Your task to perform on an android device: set the stopwatch Image 0: 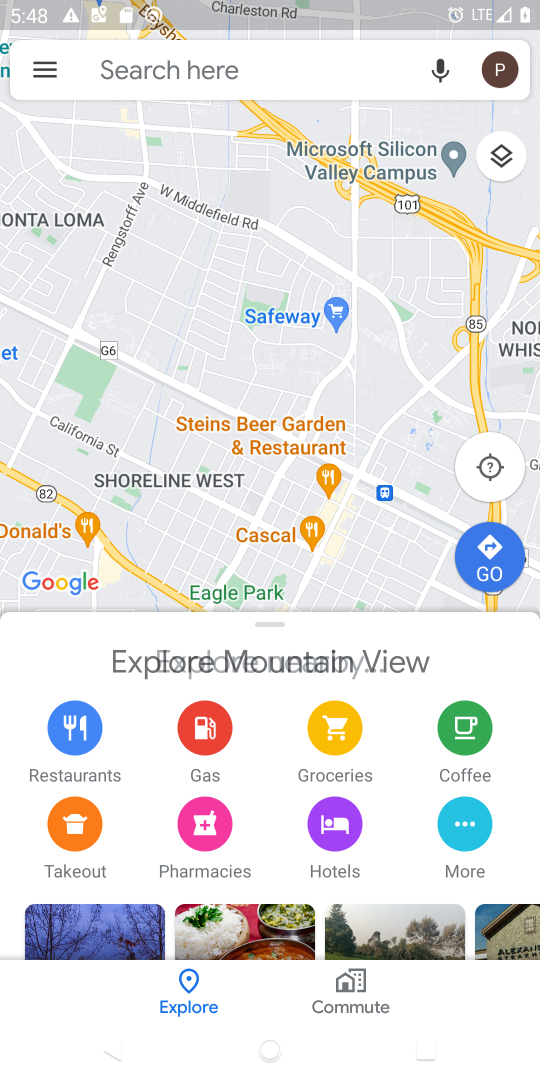
Step 0: press back button
Your task to perform on an android device: set the stopwatch Image 1: 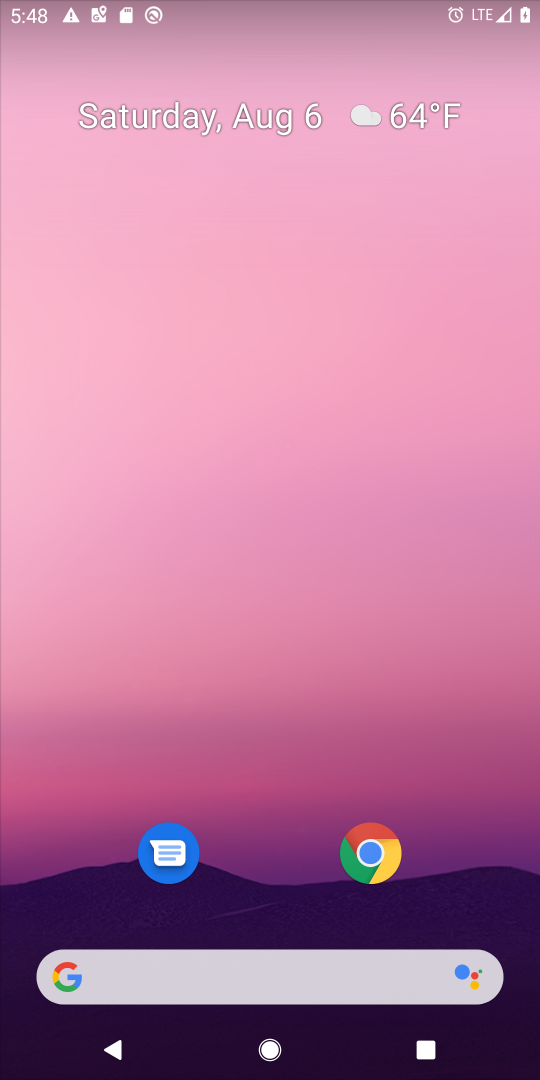
Step 1: drag from (237, 886) to (380, 44)
Your task to perform on an android device: set the stopwatch Image 2: 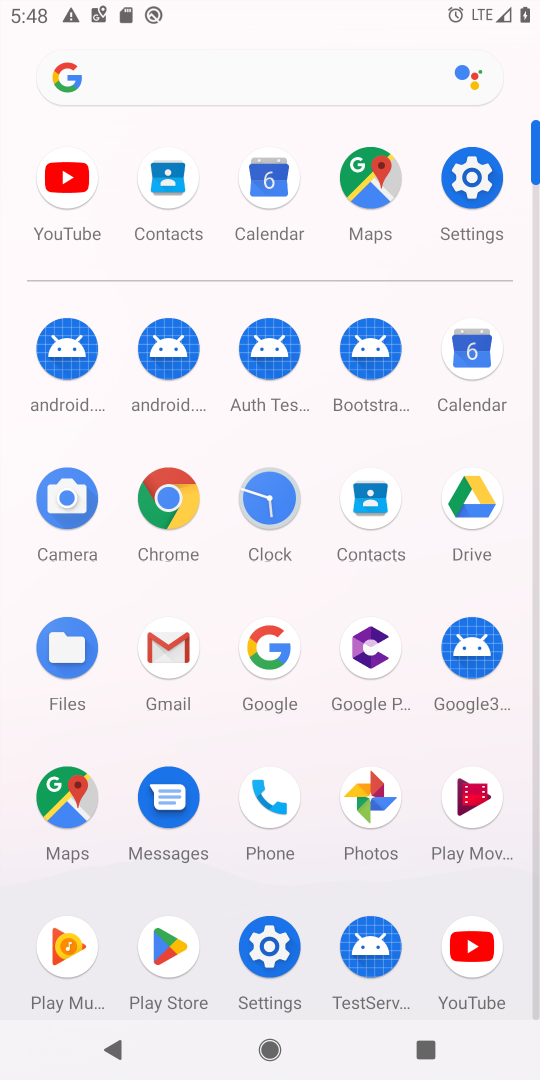
Step 2: click (271, 483)
Your task to perform on an android device: set the stopwatch Image 3: 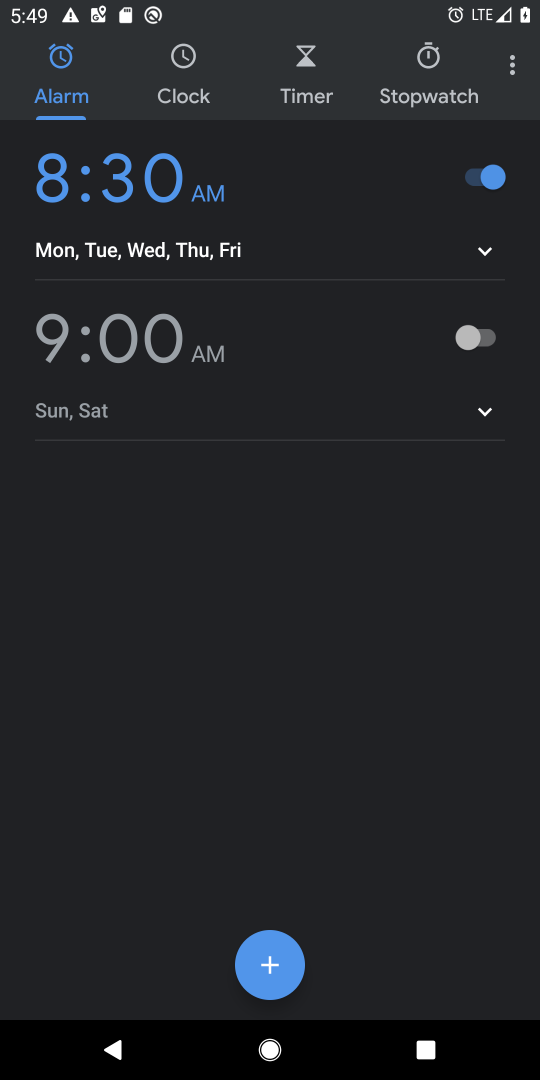
Step 3: click (449, 73)
Your task to perform on an android device: set the stopwatch Image 4: 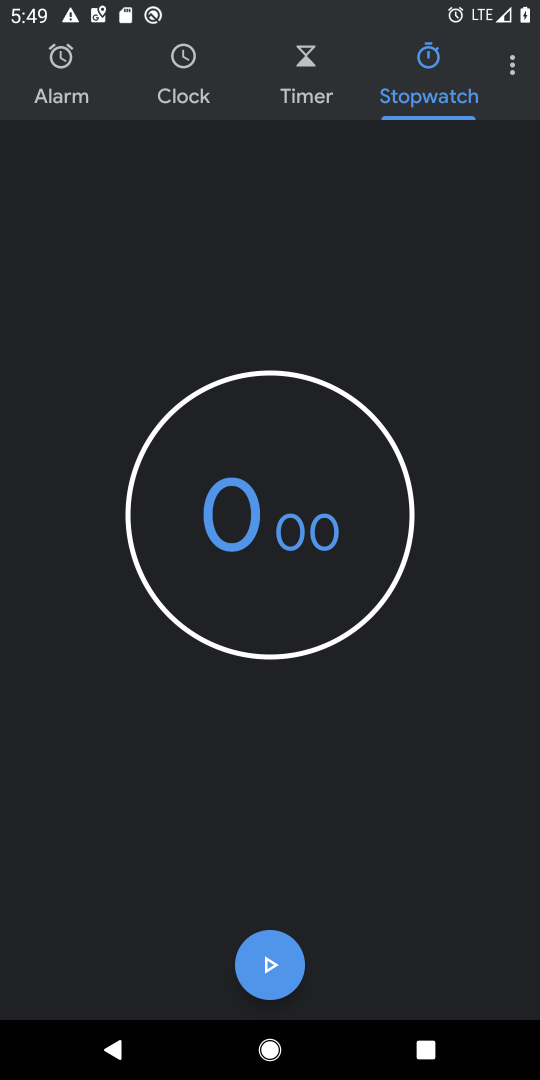
Step 4: click (286, 534)
Your task to perform on an android device: set the stopwatch Image 5: 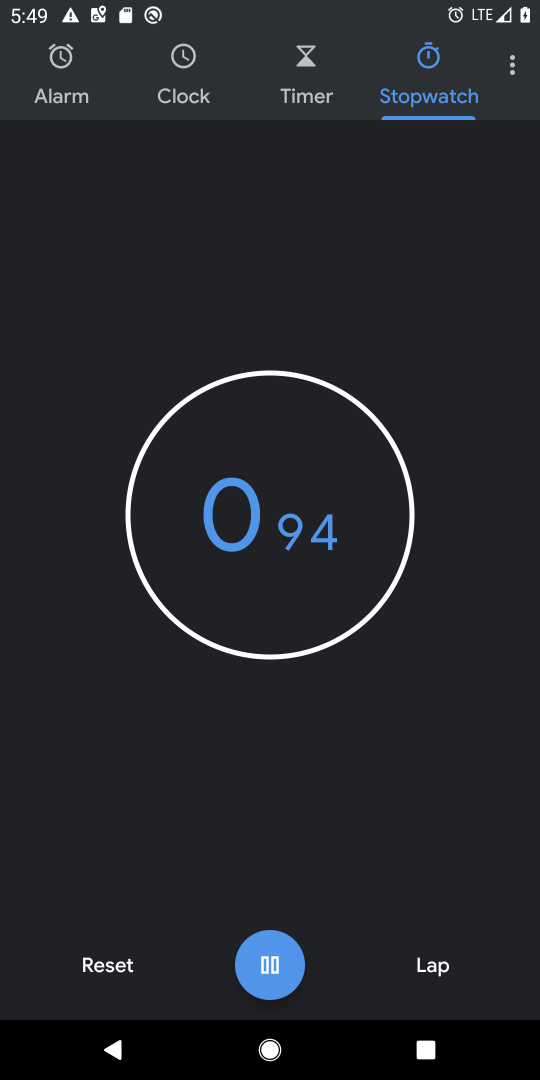
Step 5: click (286, 534)
Your task to perform on an android device: set the stopwatch Image 6: 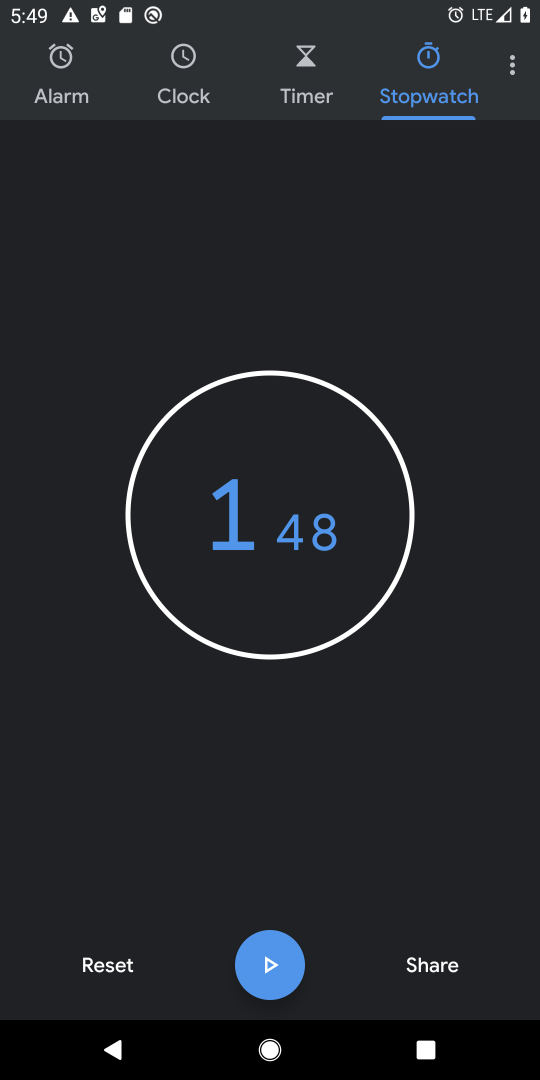
Step 6: task complete